Your task to perform on an android device: Go to notification settings Image 0: 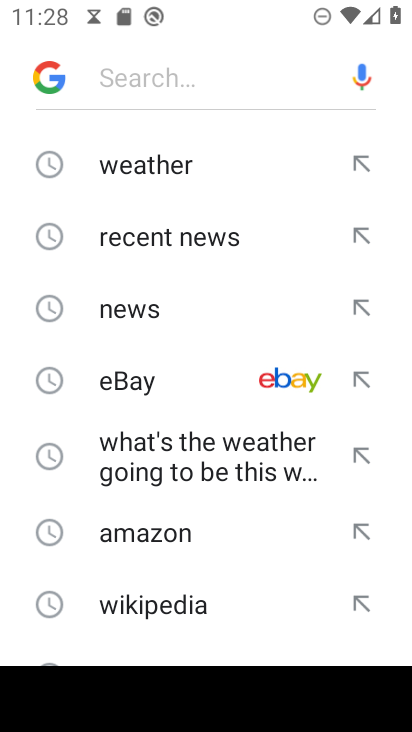
Step 0: press home button
Your task to perform on an android device: Go to notification settings Image 1: 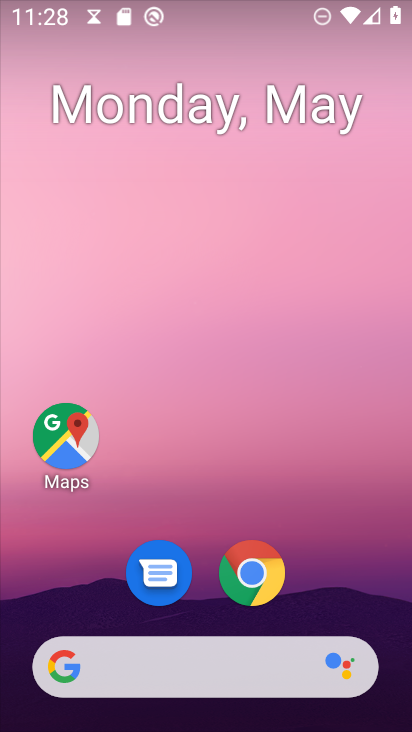
Step 1: drag from (356, 525) to (270, 41)
Your task to perform on an android device: Go to notification settings Image 2: 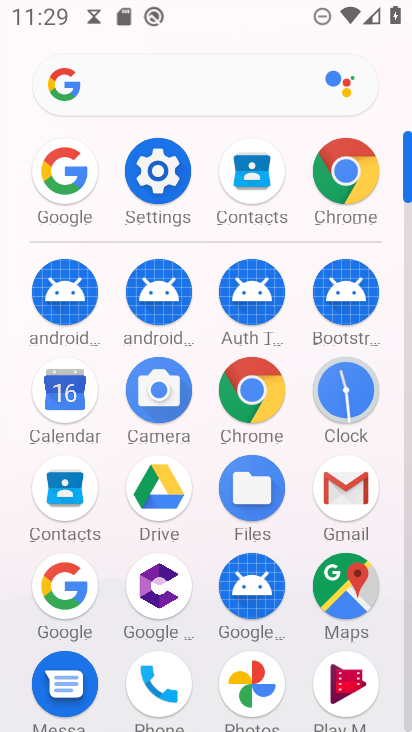
Step 2: click (155, 182)
Your task to perform on an android device: Go to notification settings Image 3: 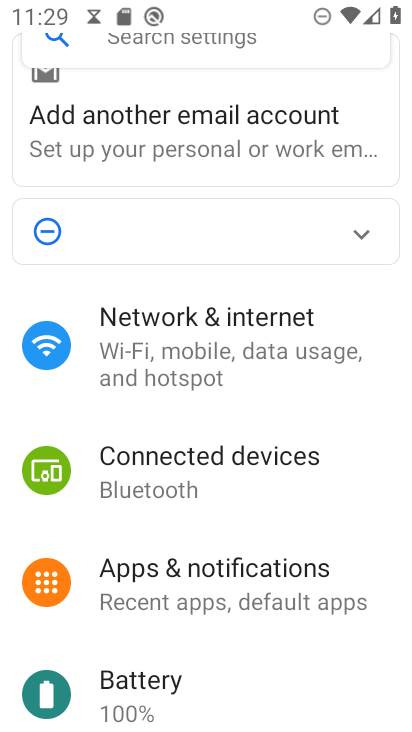
Step 3: click (214, 565)
Your task to perform on an android device: Go to notification settings Image 4: 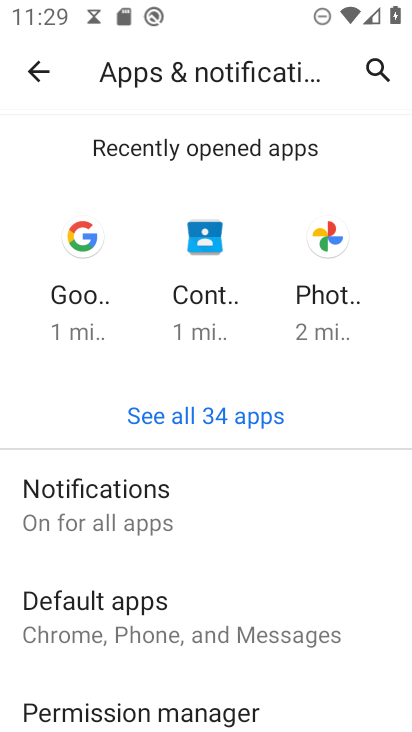
Step 4: task complete